Your task to perform on an android device: Search for Italian restaurants on Maps Image 0: 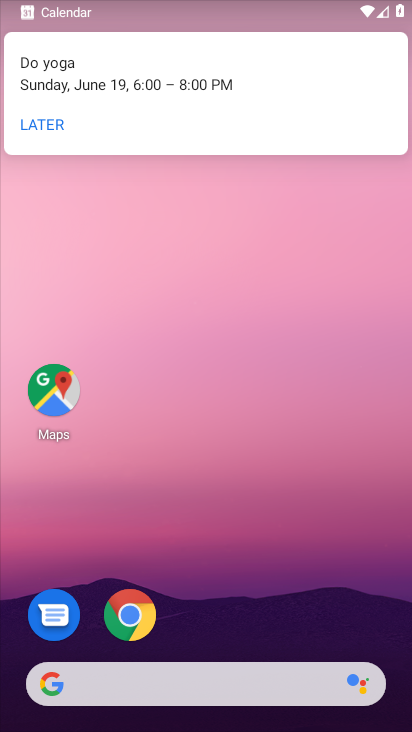
Step 0: click (60, 392)
Your task to perform on an android device: Search for Italian restaurants on Maps Image 1: 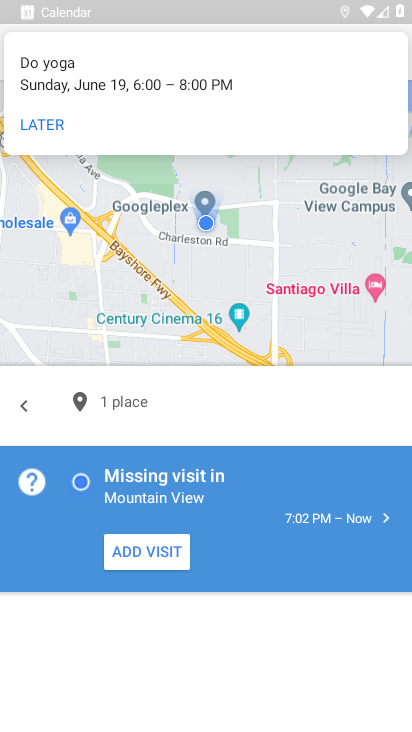
Step 1: click (35, 126)
Your task to perform on an android device: Search for Italian restaurants on Maps Image 2: 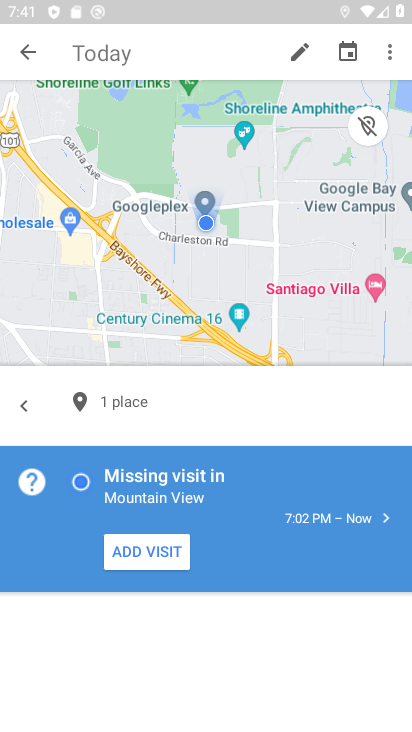
Step 2: click (22, 58)
Your task to perform on an android device: Search for Italian restaurants on Maps Image 3: 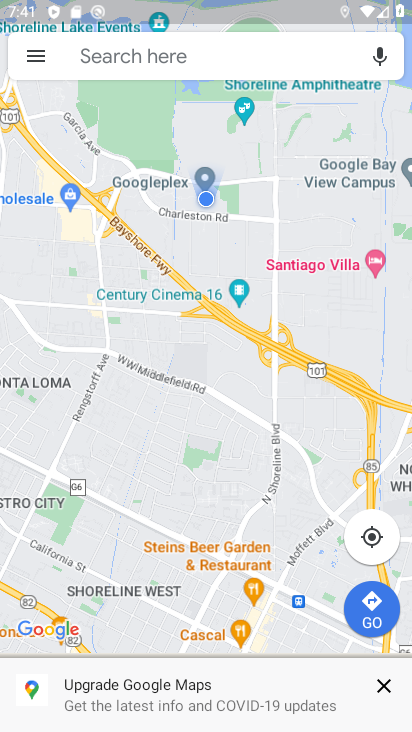
Step 3: click (112, 56)
Your task to perform on an android device: Search for Italian restaurants on Maps Image 4: 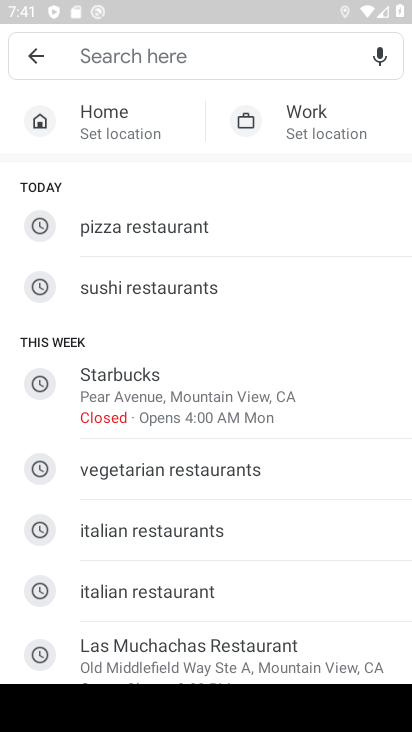
Step 4: click (122, 517)
Your task to perform on an android device: Search for Italian restaurants on Maps Image 5: 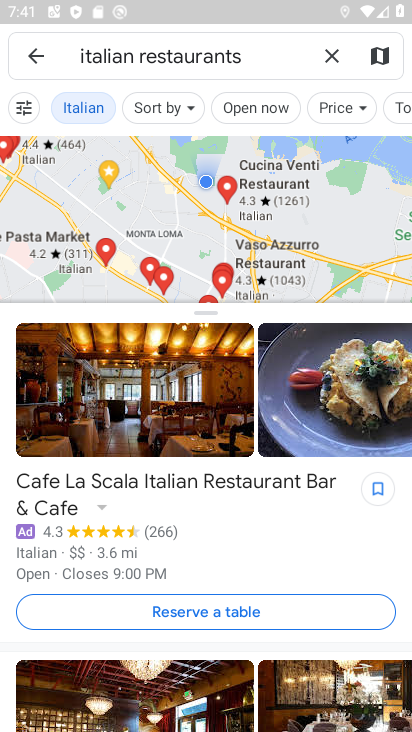
Step 5: task complete